Your task to perform on an android device: change the clock display to digital Image 0: 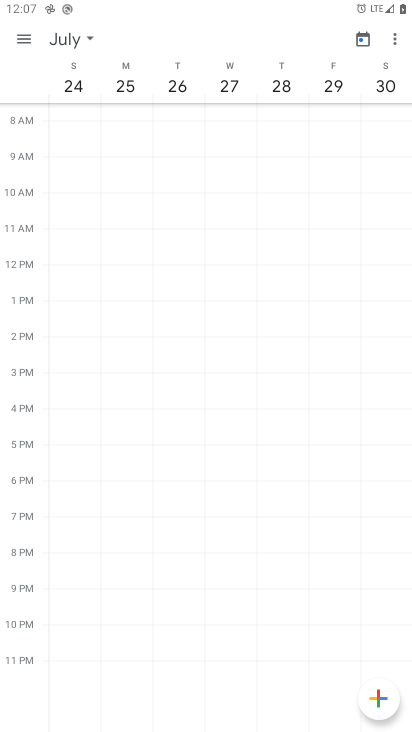
Step 0: press home button
Your task to perform on an android device: change the clock display to digital Image 1: 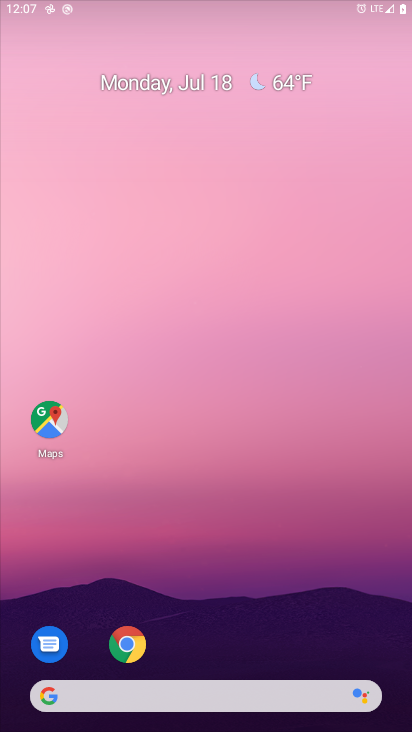
Step 1: drag from (277, 586) to (311, 66)
Your task to perform on an android device: change the clock display to digital Image 2: 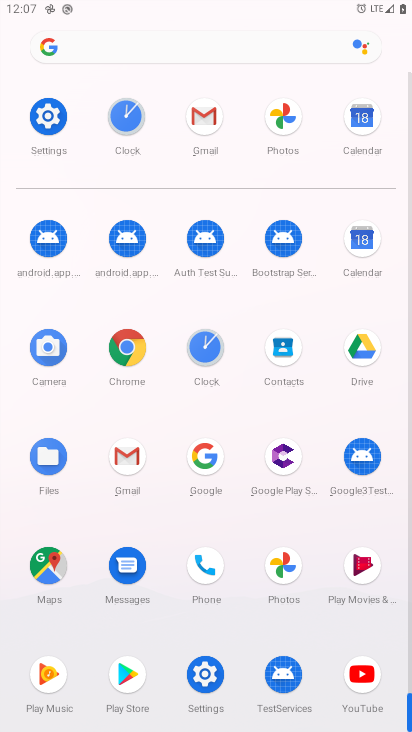
Step 2: click (204, 338)
Your task to perform on an android device: change the clock display to digital Image 3: 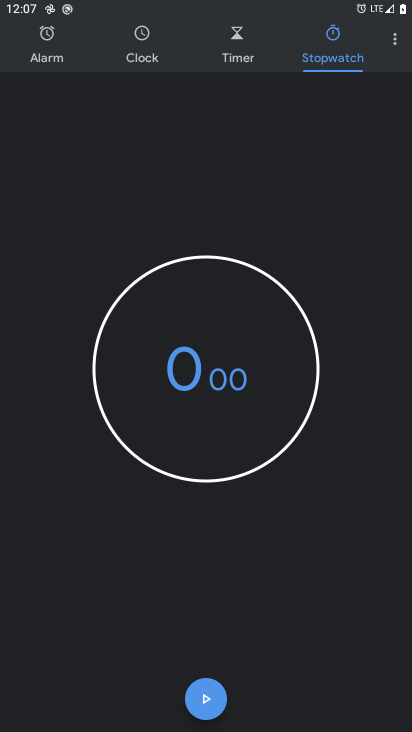
Step 3: click (393, 37)
Your task to perform on an android device: change the clock display to digital Image 4: 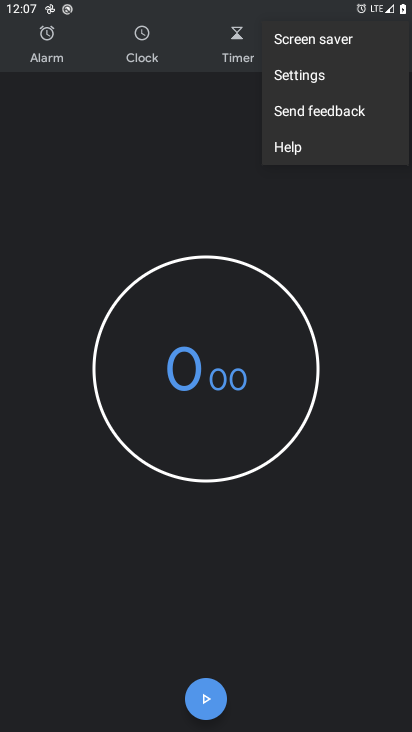
Step 4: click (312, 76)
Your task to perform on an android device: change the clock display to digital Image 5: 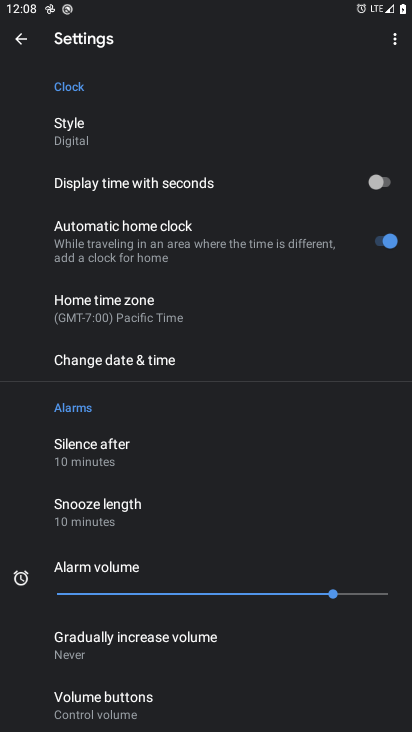
Step 5: click (92, 128)
Your task to perform on an android device: change the clock display to digital Image 6: 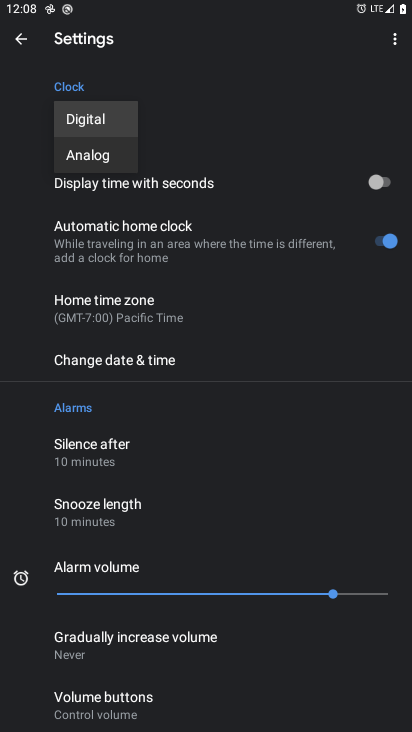
Step 6: task complete